Your task to perform on an android device: Show me recent news Image 0: 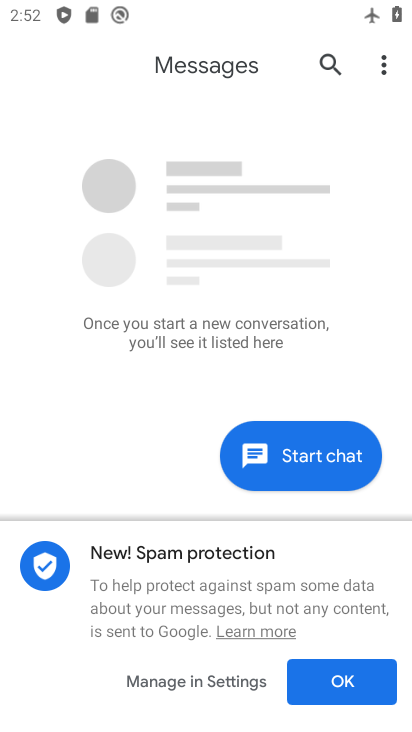
Step 0: press home button
Your task to perform on an android device: Show me recent news Image 1: 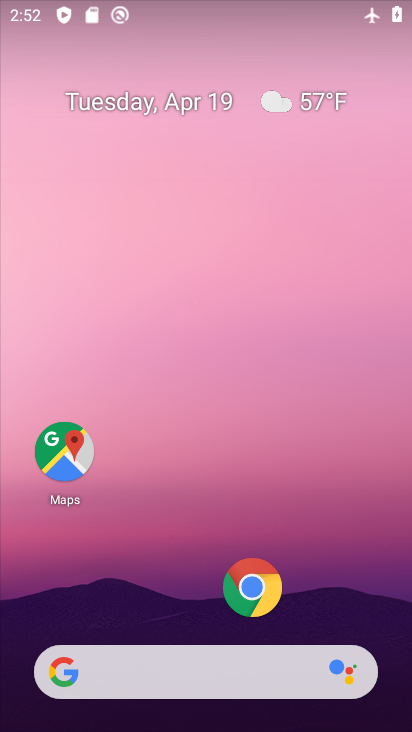
Step 1: drag from (182, 591) to (230, 6)
Your task to perform on an android device: Show me recent news Image 2: 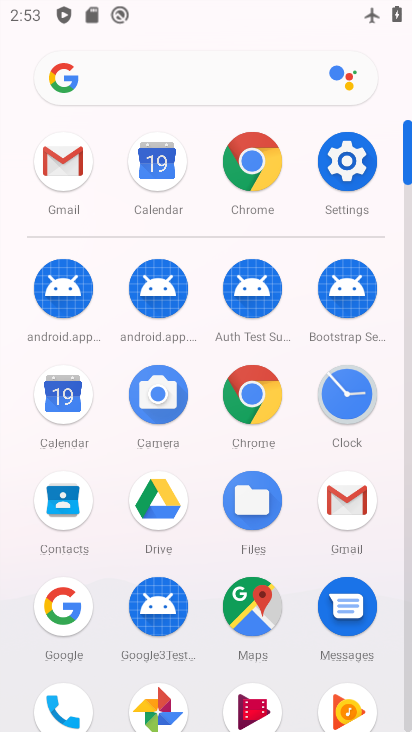
Step 2: click (201, 78)
Your task to perform on an android device: Show me recent news Image 3: 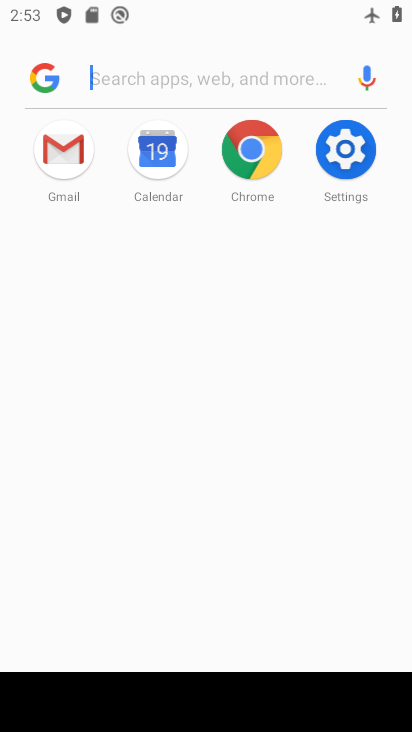
Step 3: type "recent news"
Your task to perform on an android device: Show me recent news Image 4: 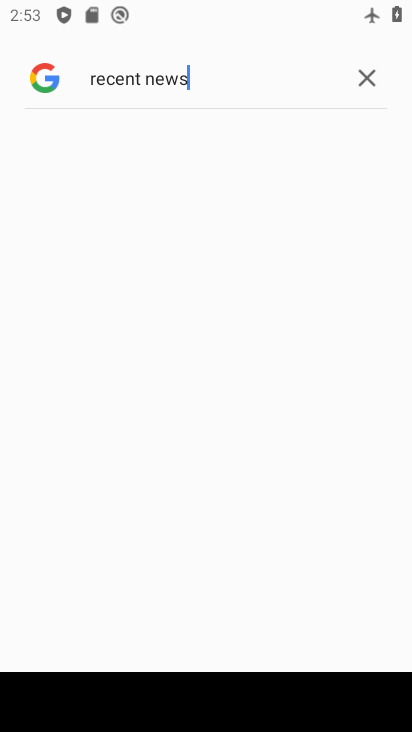
Step 4: click (227, 203)
Your task to perform on an android device: Show me recent news Image 5: 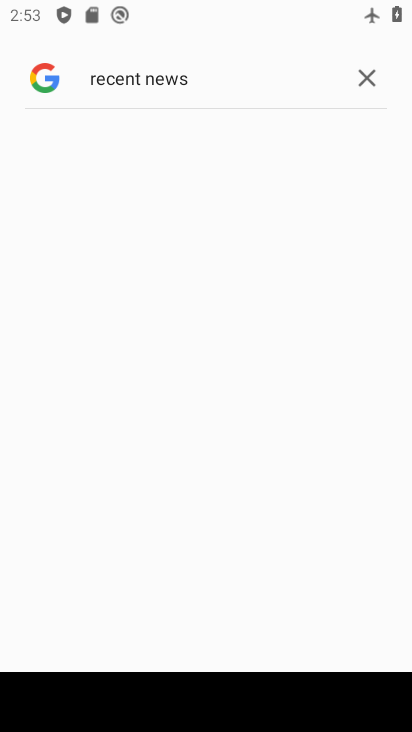
Step 5: task complete